Your task to perform on an android device: Open Wikipedia Image 0: 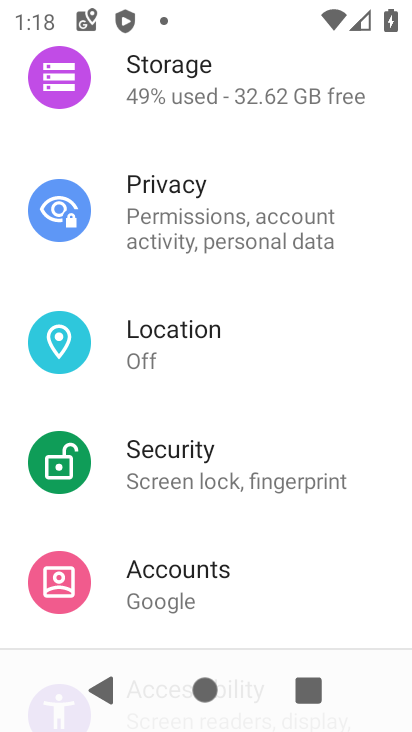
Step 0: press home button
Your task to perform on an android device: Open Wikipedia Image 1: 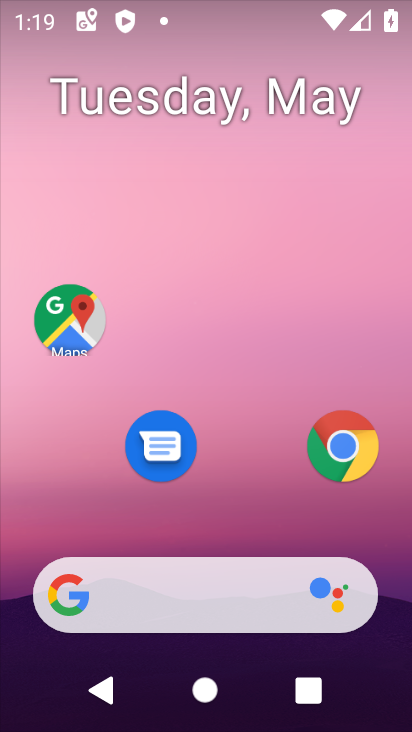
Step 1: click (327, 447)
Your task to perform on an android device: Open Wikipedia Image 2: 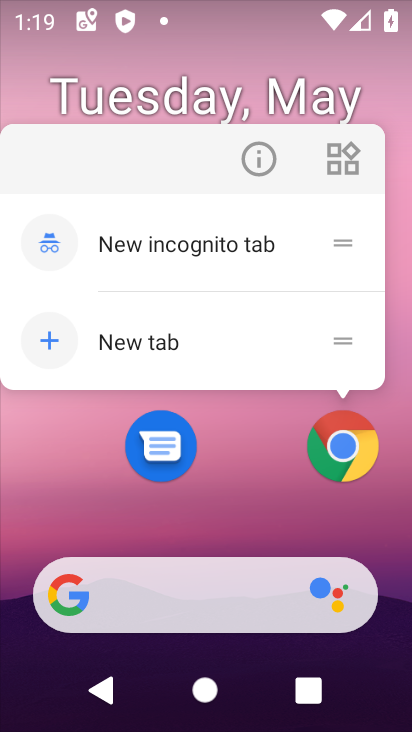
Step 2: click (354, 452)
Your task to perform on an android device: Open Wikipedia Image 3: 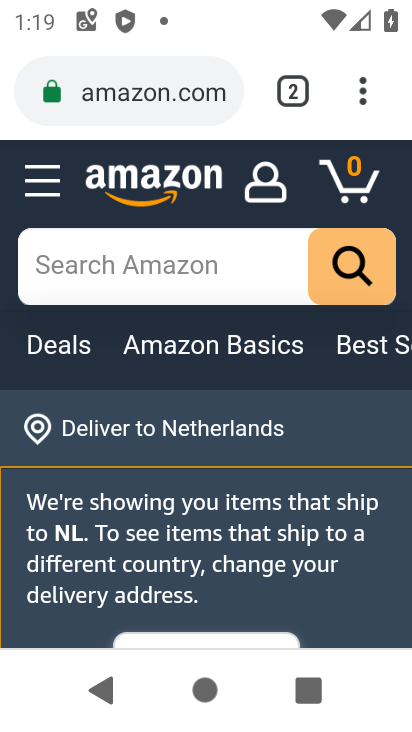
Step 3: click (290, 82)
Your task to perform on an android device: Open Wikipedia Image 4: 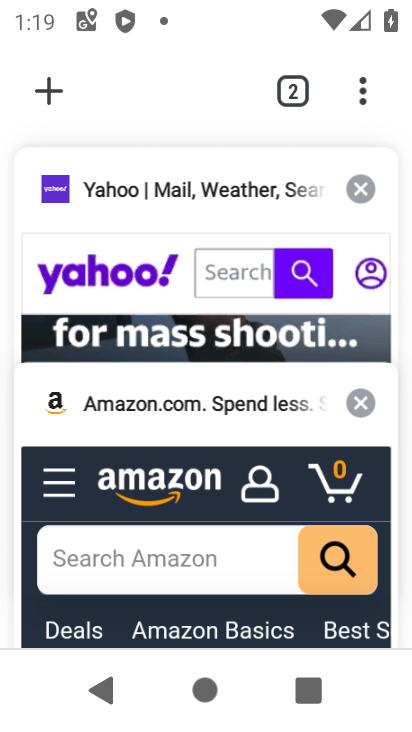
Step 4: click (55, 96)
Your task to perform on an android device: Open Wikipedia Image 5: 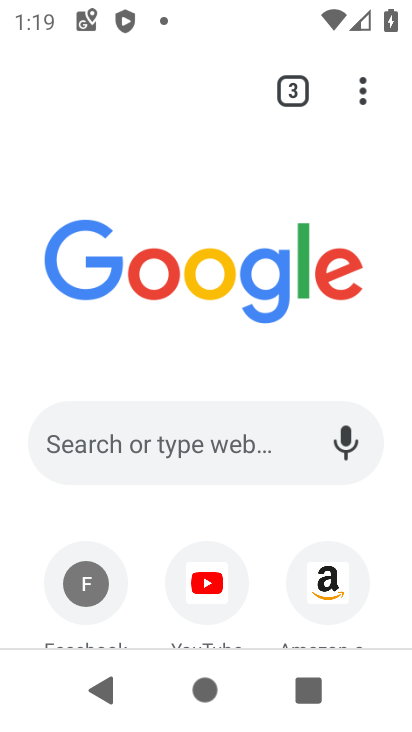
Step 5: drag from (238, 618) to (225, 156)
Your task to perform on an android device: Open Wikipedia Image 6: 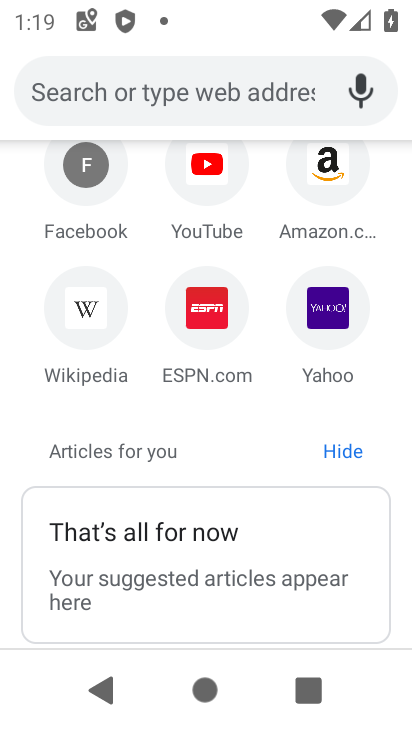
Step 6: click (68, 337)
Your task to perform on an android device: Open Wikipedia Image 7: 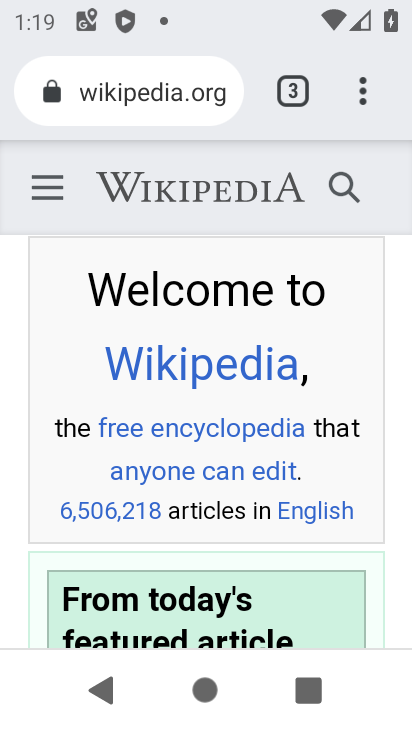
Step 7: task complete